Your task to perform on an android device: Do I have any events today? Image 0: 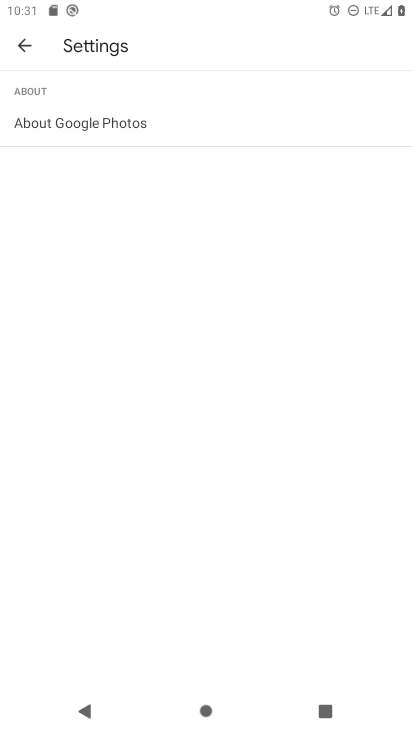
Step 0: press home button
Your task to perform on an android device: Do I have any events today? Image 1: 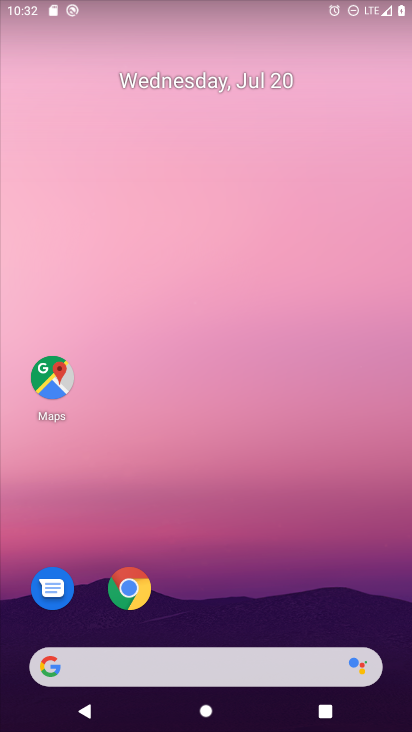
Step 1: click (197, 89)
Your task to perform on an android device: Do I have any events today? Image 2: 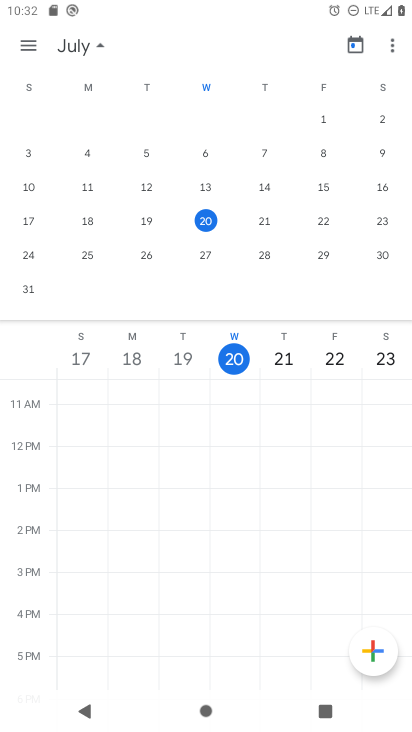
Step 2: task complete